Your task to perform on an android device: Open Yahoo.com Image 0: 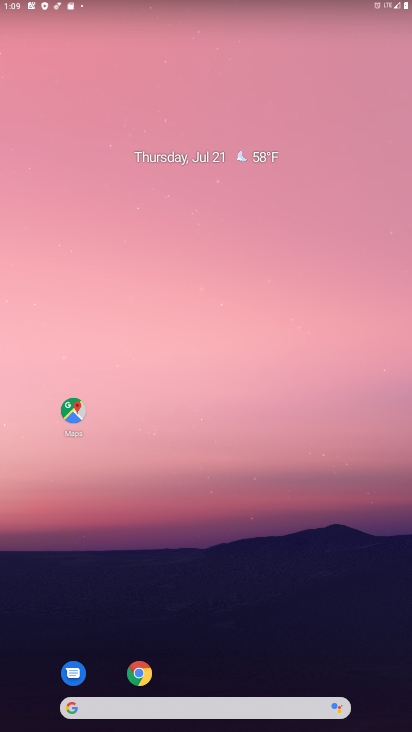
Step 0: drag from (219, 647) to (214, 131)
Your task to perform on an android device: Open Yahoo.com Image 1: 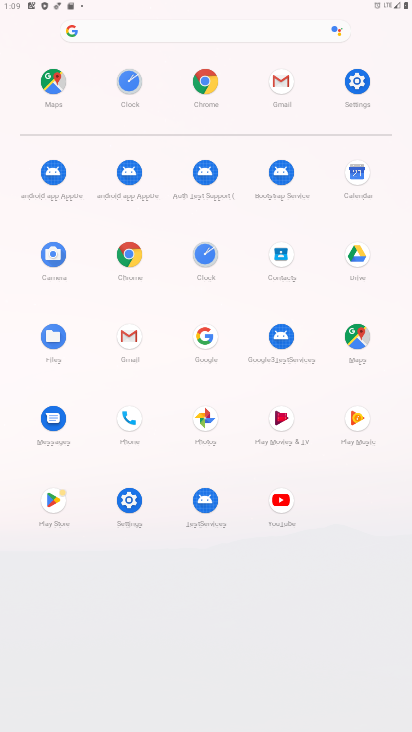
Step 1: click (204, 77)
Your task to perform on an android device: Open Yahoo.com Image 2: 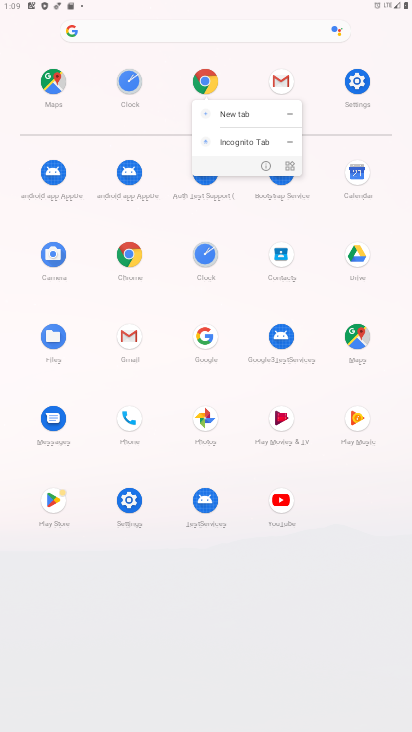
Step 2: click (217, 78)
Your task to perform on an android device: Open Yahoo.com Image 3: 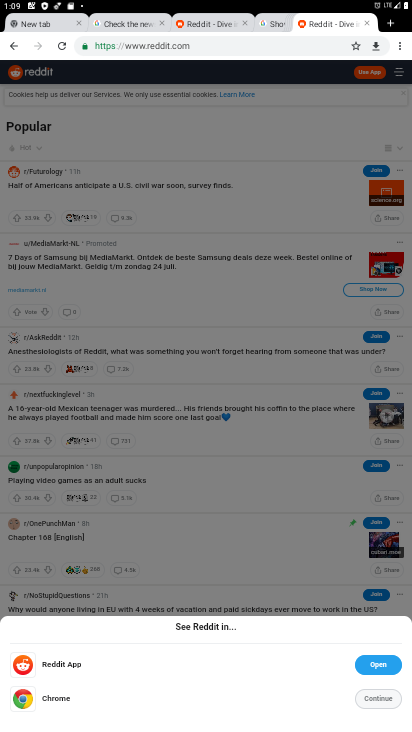
Step 3: click (389, 19)
Your task to perform on an android device: Open Yahoo.com Image 4: 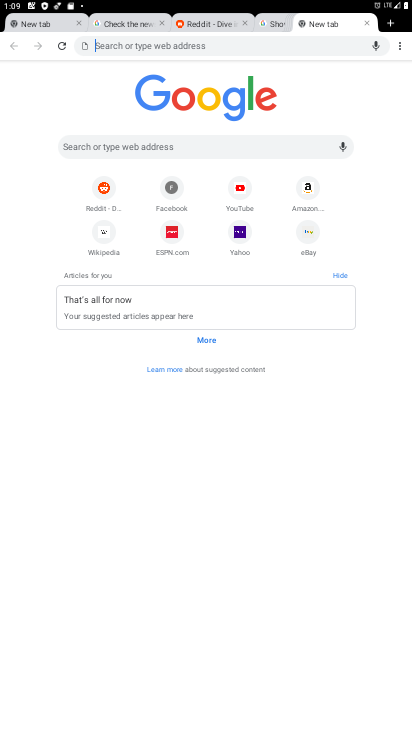
Step 4: click (245, 233)
Your task to perform on an android device: Open Yahoo.com Image 5: 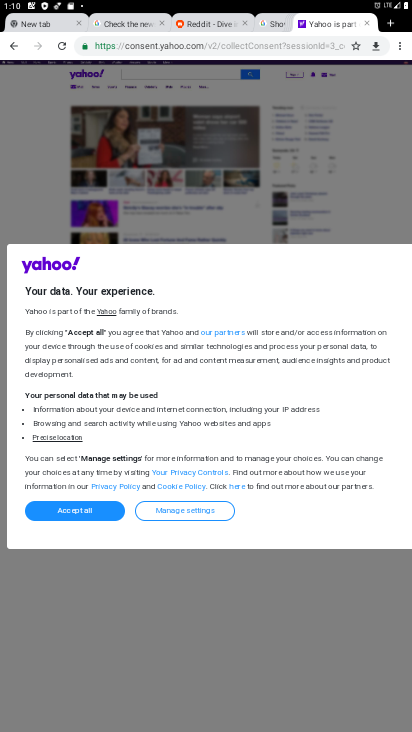
Step 5: task complete